Your task to perform on an android device: uninstall "Viber Messenger" Image 0: 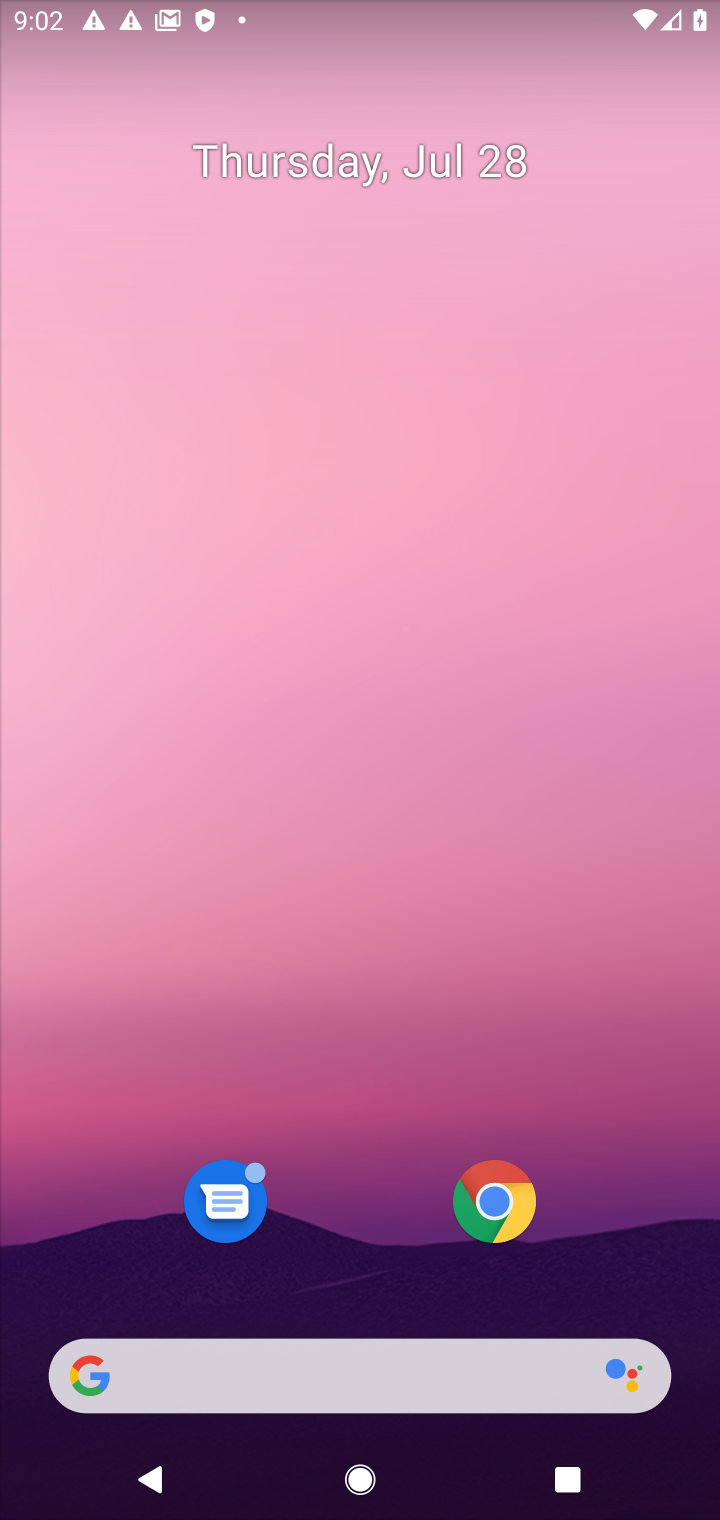
Step 0: click (465, 1345)
Your task to perform on an android device: uninstall "Viber Messenger" Image 1: 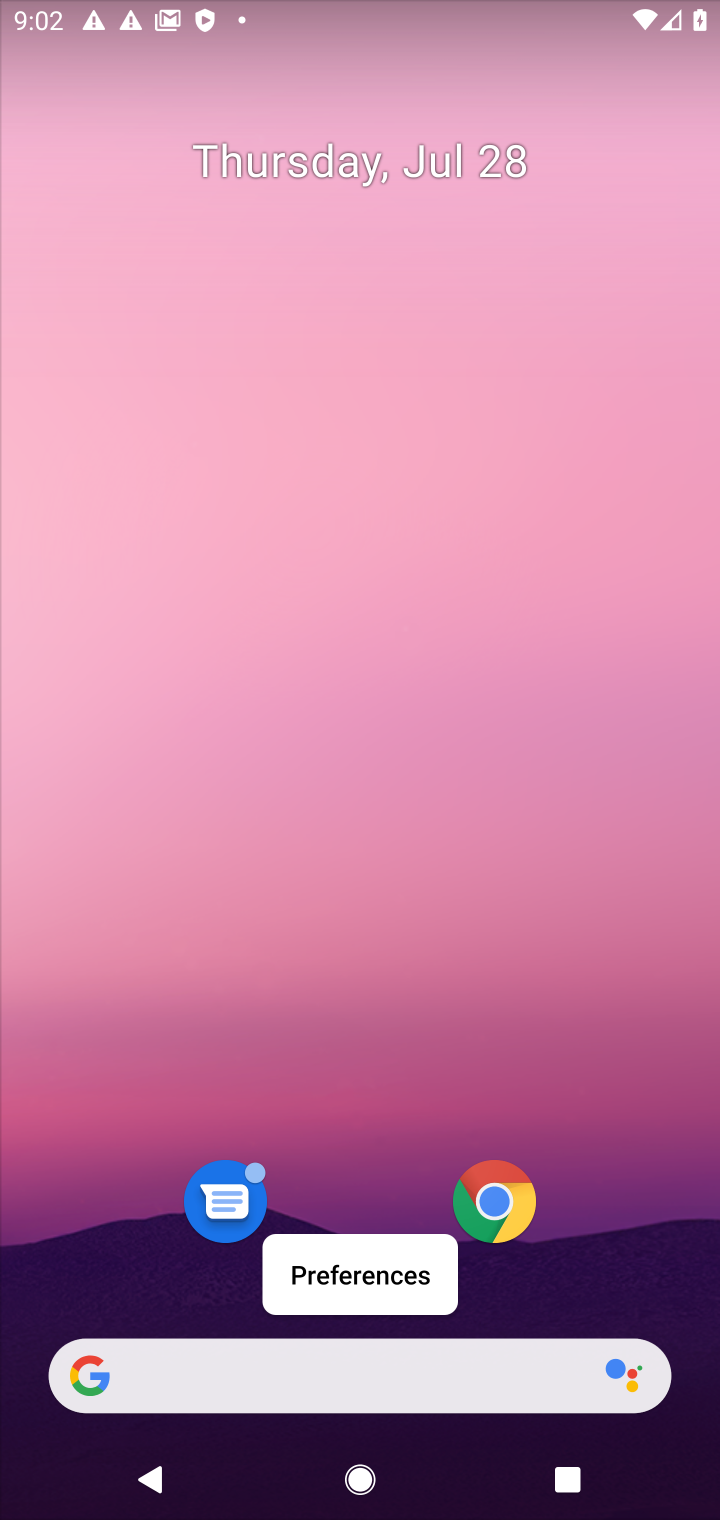
Step 1: task complete